Your task to perform on an android device: turn off airplane mode Image 0: 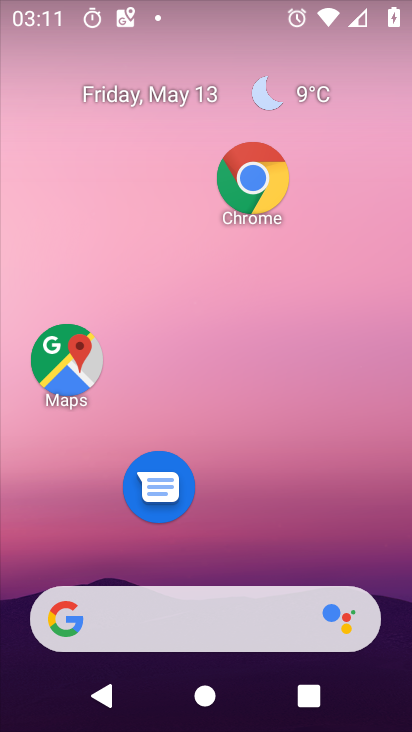
Step 0: drag from (253, 531) to (215, 82)
Your task to perform on an android device: turn off airplane mode Image 1: 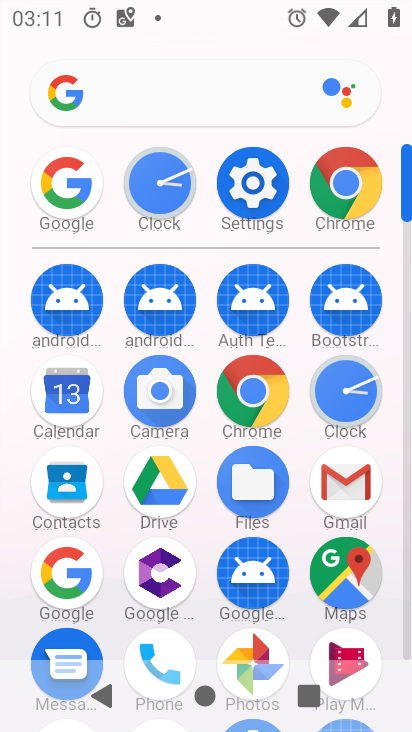
Step 1: click (247, 178)
Your task to perform on an android device: turn off airplane mode Image 2: 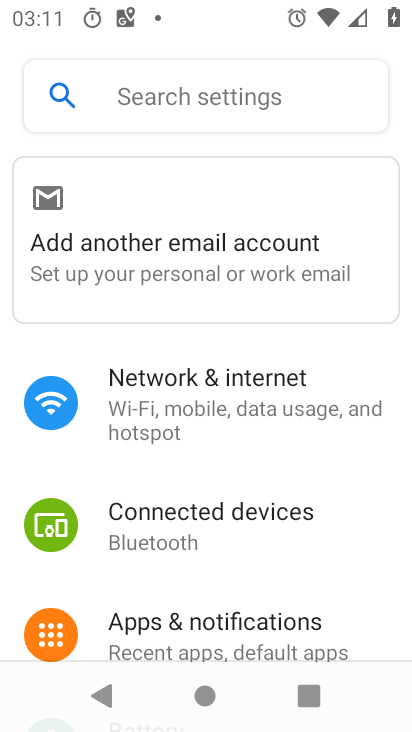
Step 2: click (213, 411)
Your task to perform on an android device: turn off airplane mode Image 3: 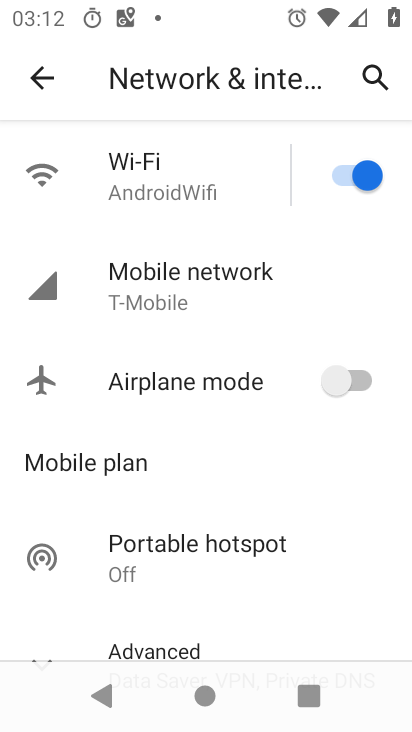
Step 3: task complete